Your task to perform on an android device: toggle sleep mode Image 0: 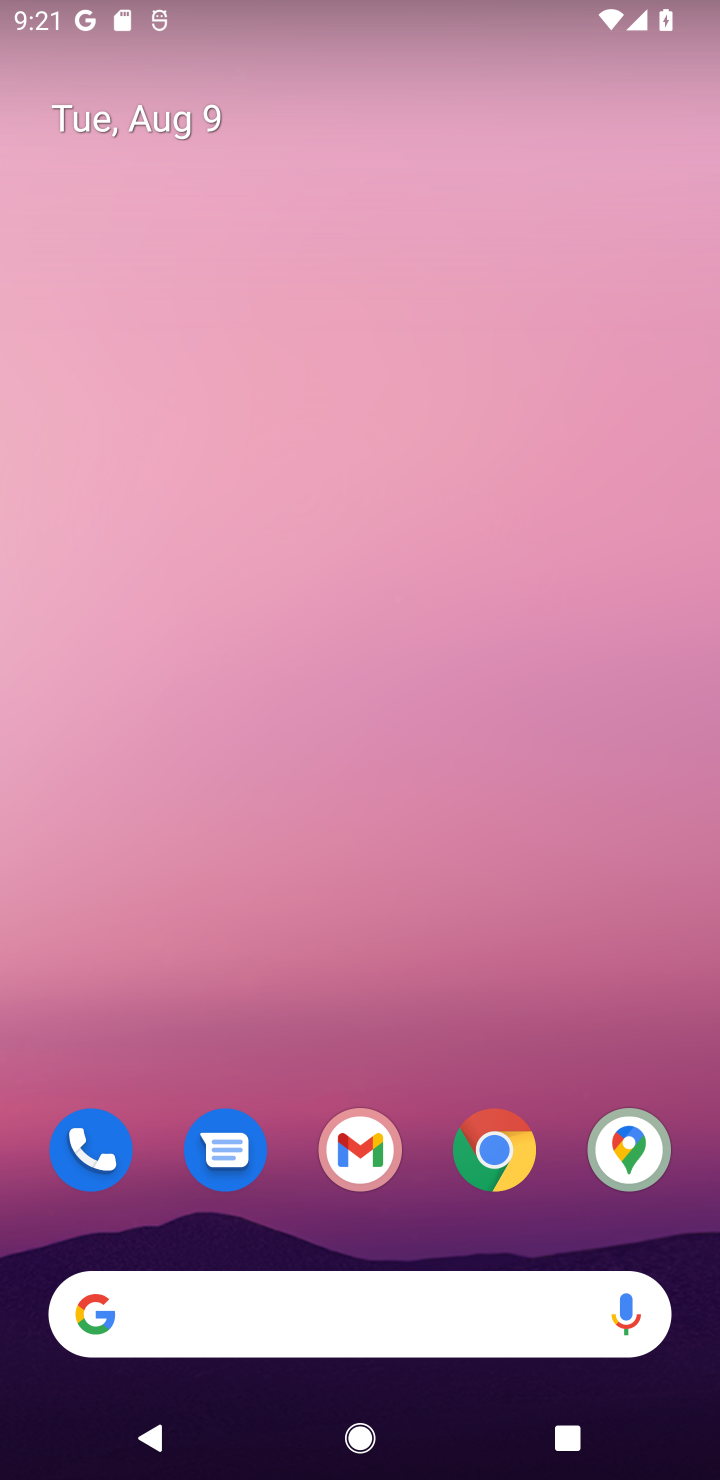
Step 0: drag from (505, 728) to (579, 330)
Your task to perform on an android device: toggle sleep mode Image 1: 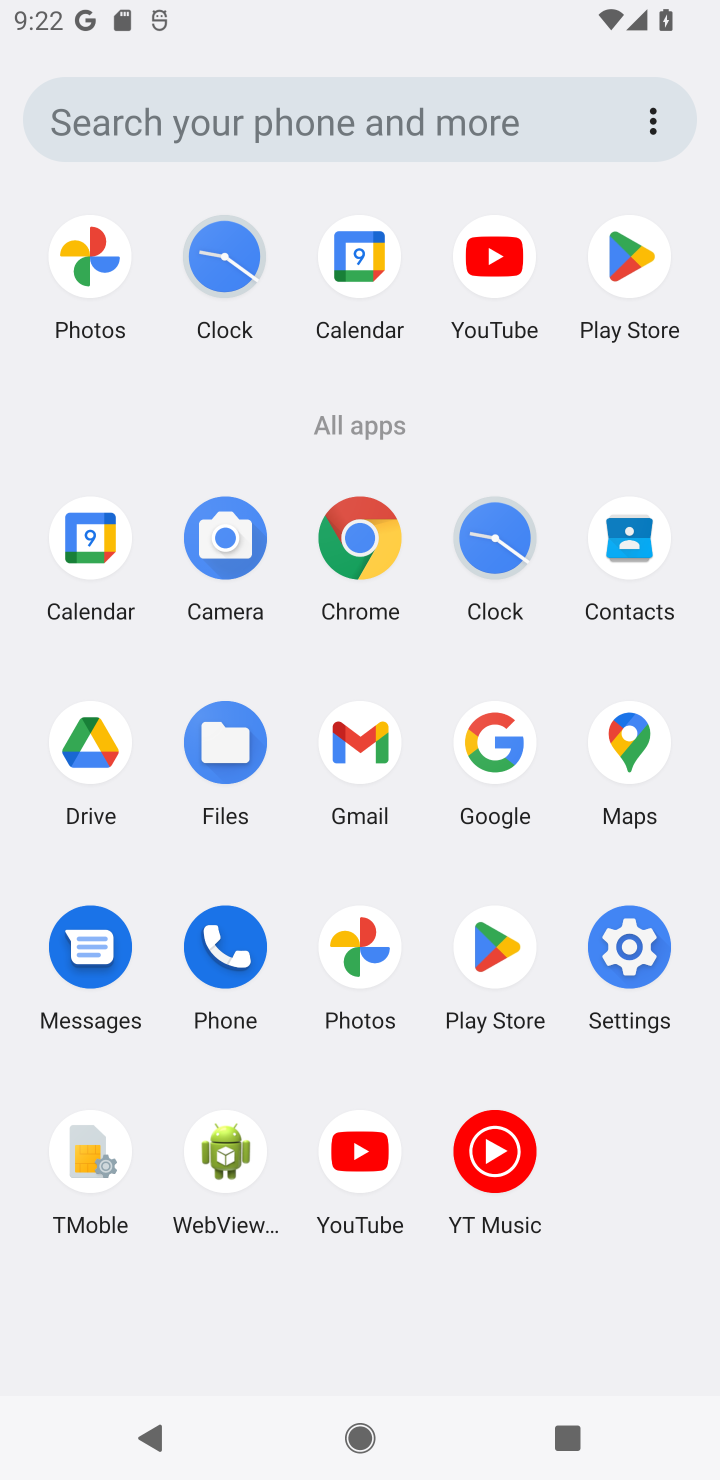
Step 1: click (659, 985)
Your task to perform on an android device: toggle sleep mode Image 2: 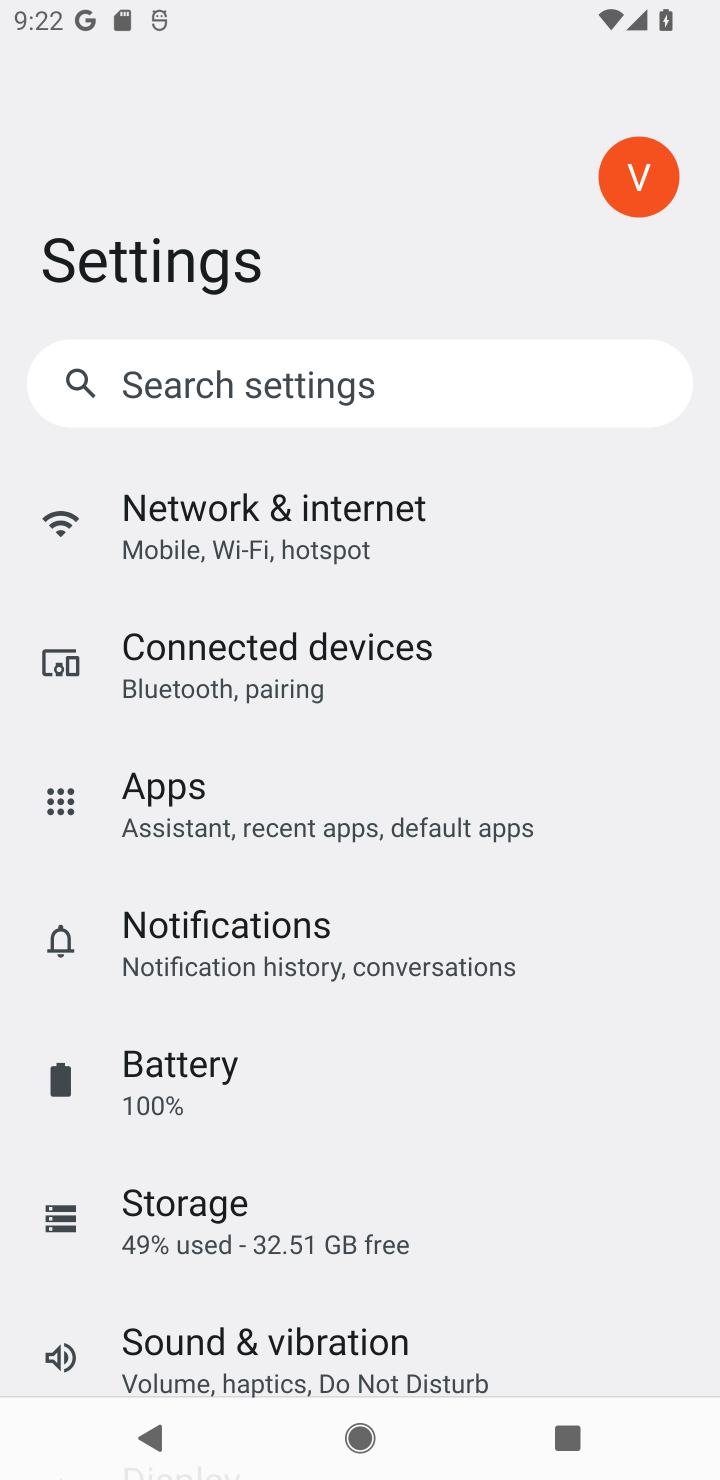
Step 2: drag from (262, 895) to (349, 513)
Your task to perform on an android device: toggle sleep mode Image 3: 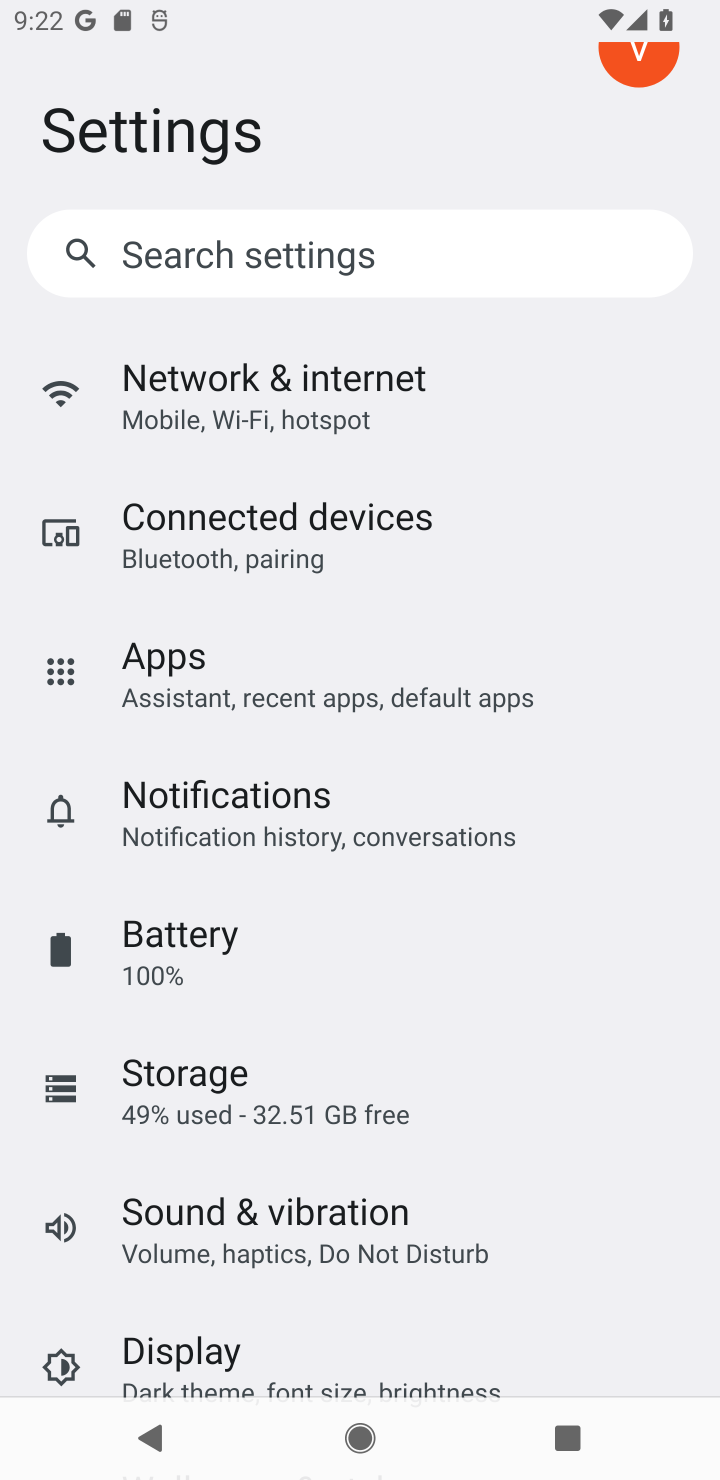
Step 3: click (267, 1352)
Your task to perform on an android device: toggle sleep mode Image 4: 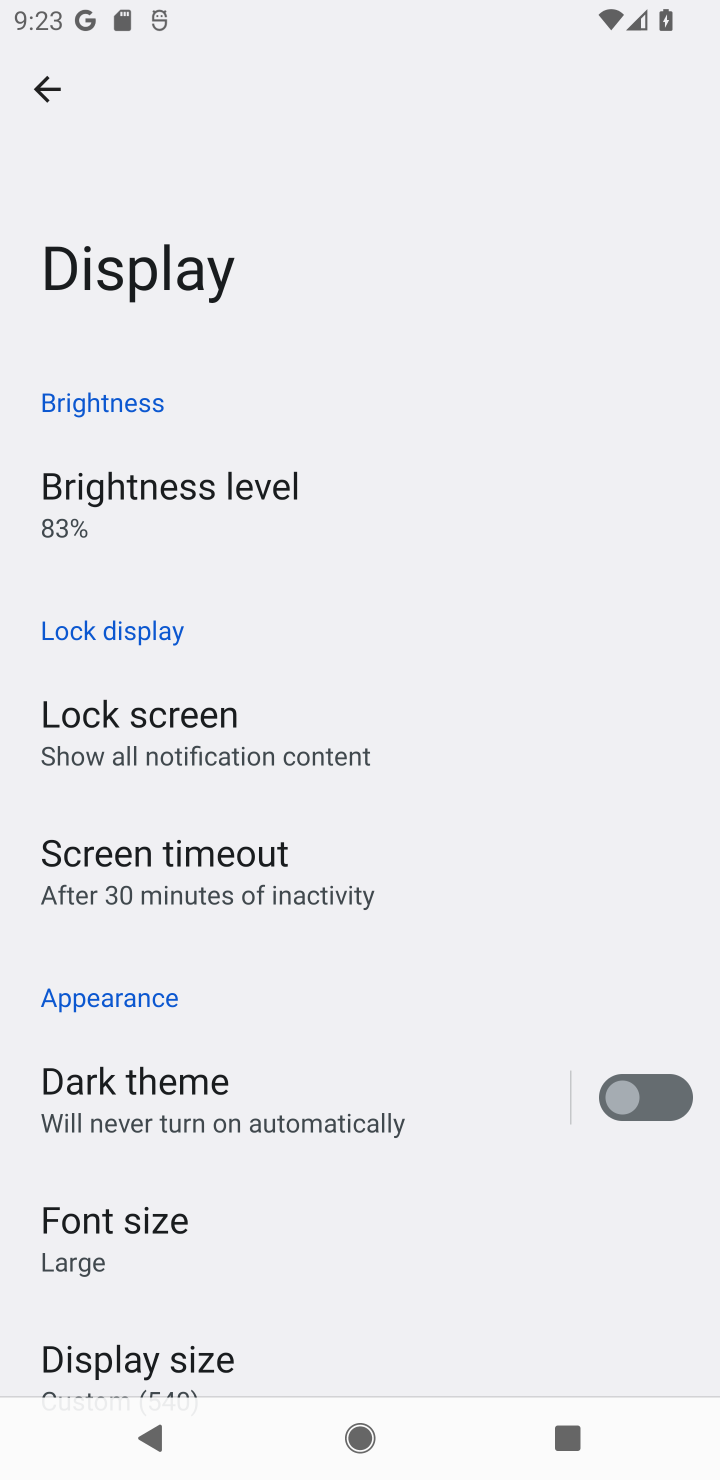
Step 4: task complete